Your task to perform on an android device: open app "DoorDash - Food Delivery" (install if not already installed), go to login, and select forgot password Image 0: 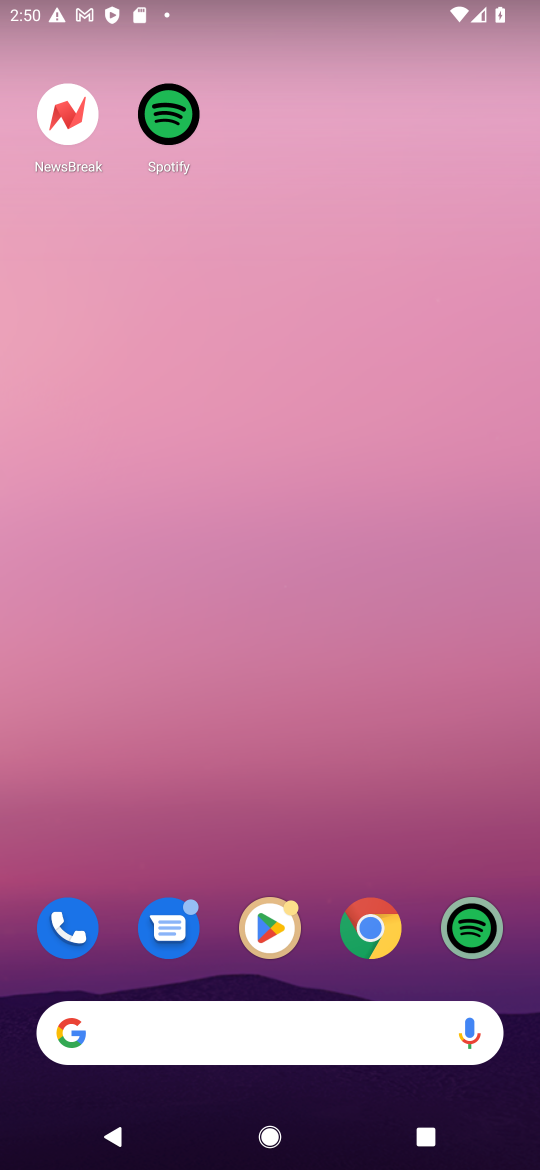
Step 0: click (276, 918)
Your task to perform on an android device: open app "DoorDash - Food Delivery" (install if not already installed), go to login, and select forgot password Image 1: 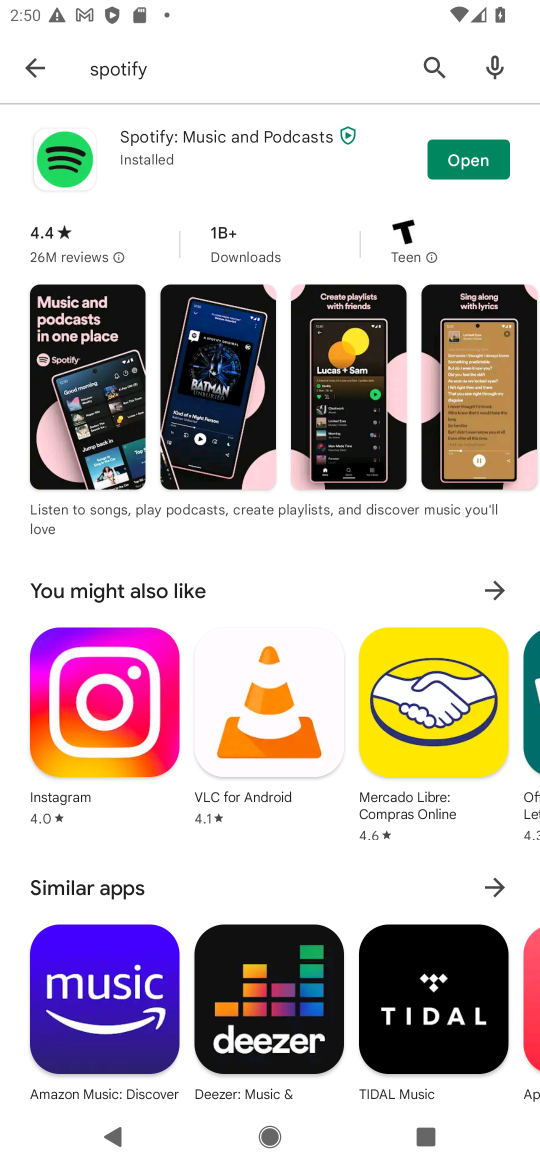
Step 1: click (135, 64)
Your task to perform on an android device: open app "DoorDash - Food Delivery" (install if not already installed), go to login, and select forgot password Image 2: 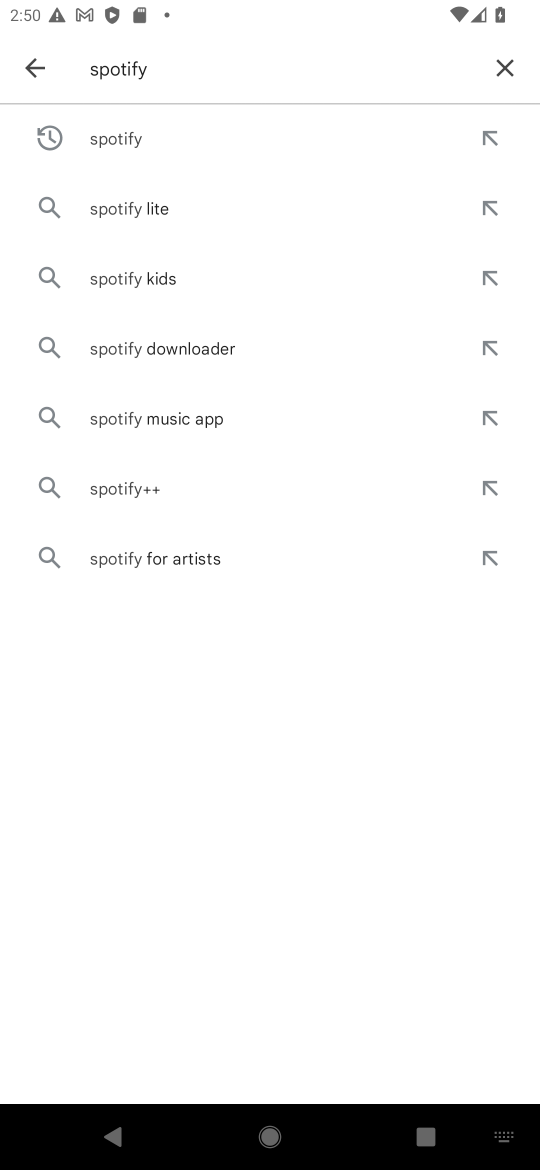
Step 2: click (500, 64)
Your task to perform on an android device: open app "DoorDash - Food Delivery" (install if not already installed), go to login, and select forgot password Image 3: 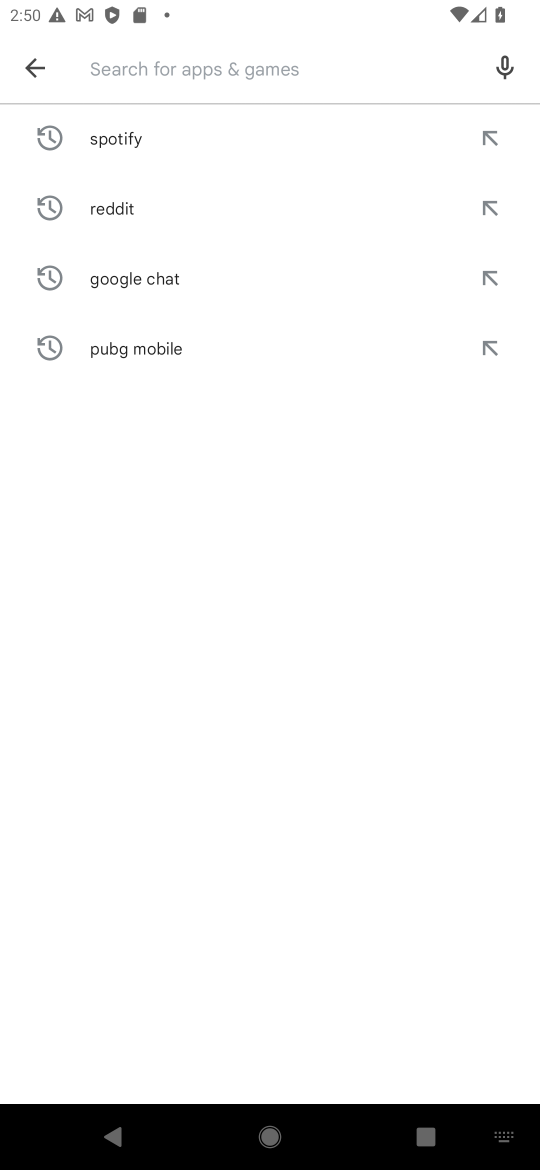
Step 3: type "DoorDash - Food Delivery"
Your task to perform on an android device: open app "DoorDash - Food Delivery" (install if not already installed), go to login, and select forgot password Image 4: 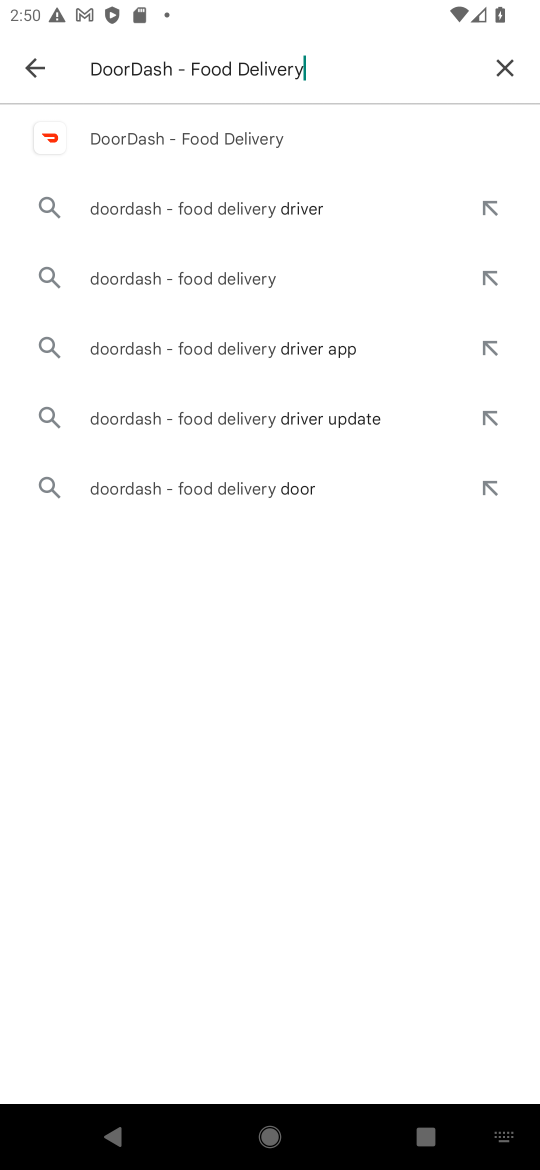
Step 4: click (169, 138)
Your task to perform on an android device: open app "DoorDash - Food Delivery" (install if not already installed), go to login, and select forgot password Image 5: 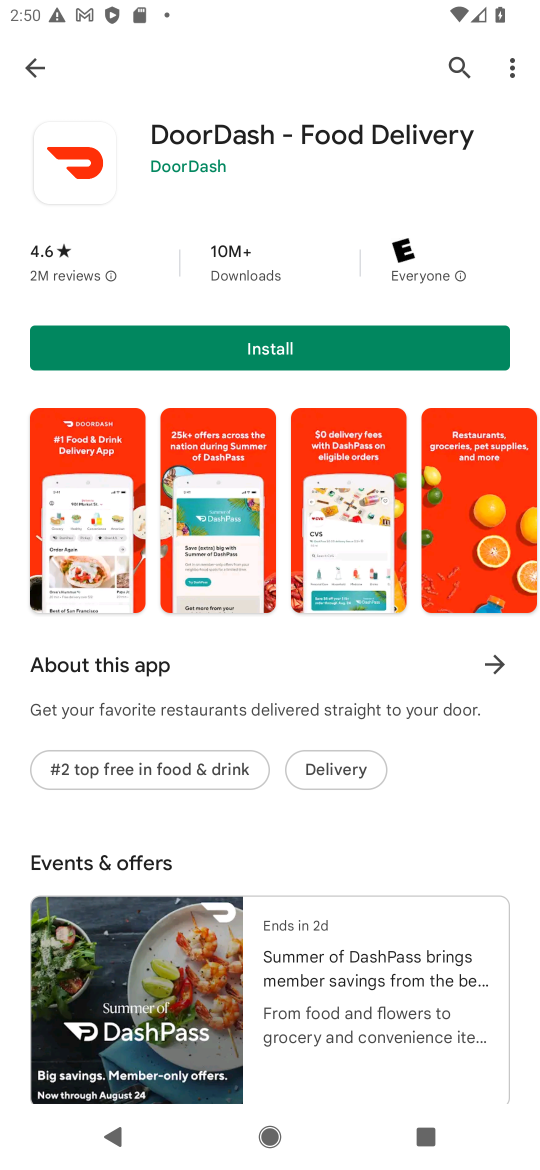
Step 5: click (285, 344)
Your task to perform on an android device: open app "DoorDash - Food Delivery" (install if not already installed), go to login, and select forgot password Image 6: 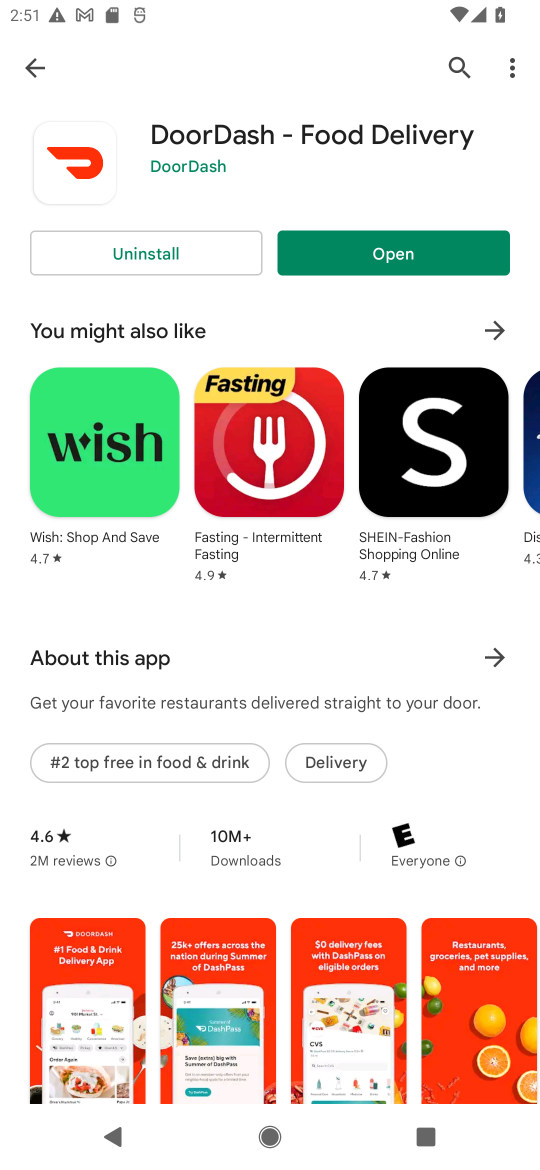
Step 6: click (390, 262)
Your task to perform on an android device: open app "DoorDash - Food Delivery" (install if not already installed), go to login, and select forgot password Image 7: 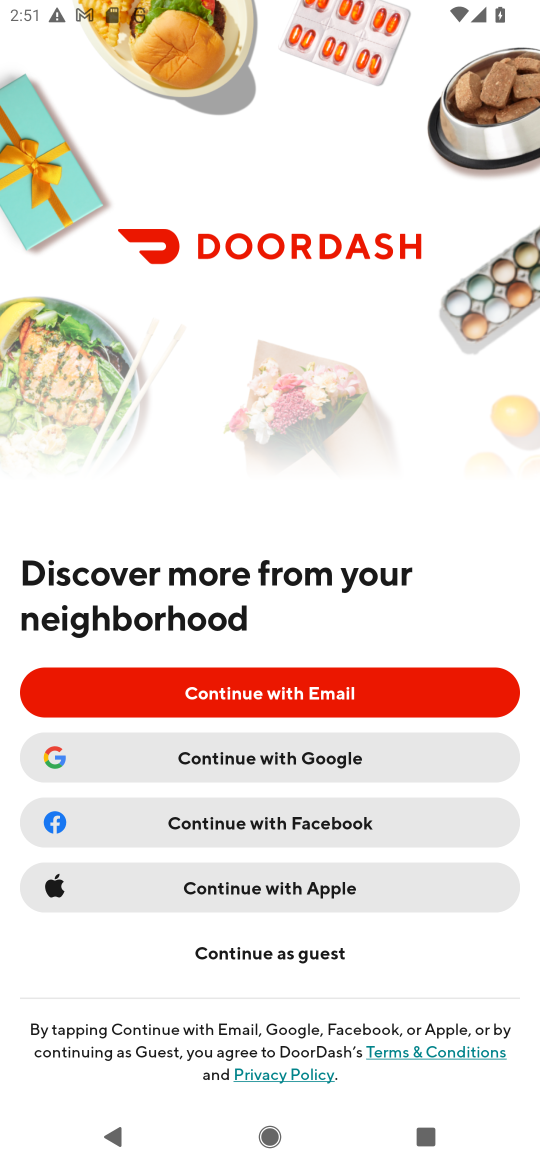
Step 7: click (297, 695)
Your task to perform on an android device: open app "DoorDash - Food Delivery" (install if not already installed), go to login, and select forgot password Image 8: 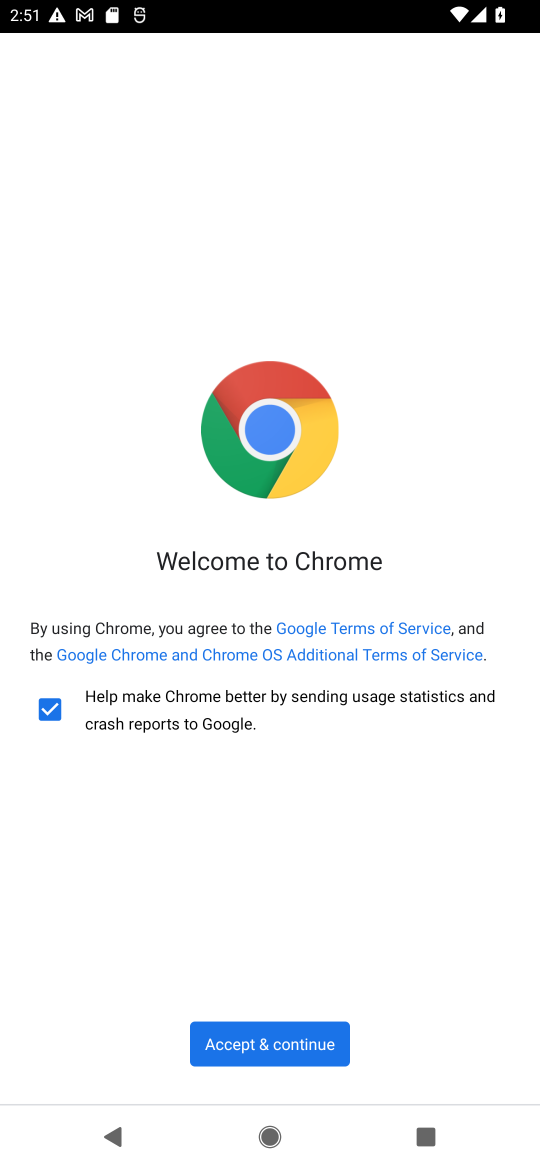
Step 8: click (239, 1056)
Your task to perform on an android device: open app "DoorDash - Food Delivery" (install if not already installed), go to login, and select forgot password Image 9: 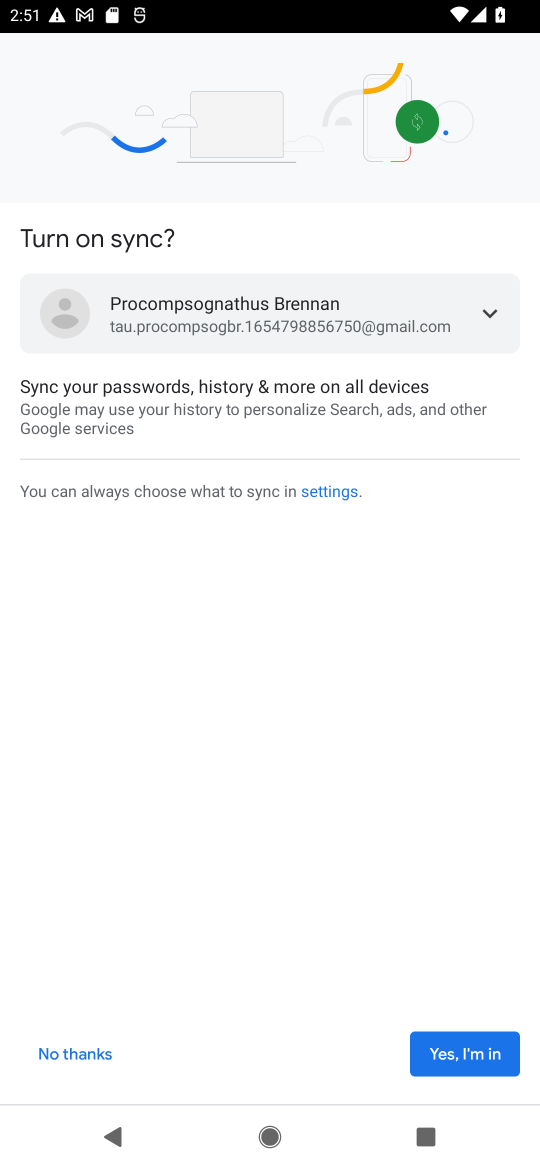
Step 9: click (442, 1046)
Your task to perform on an android device: open app "DoorDash - Food Delivery" (install if not already installed), go to login, and select forgot password Image 10: 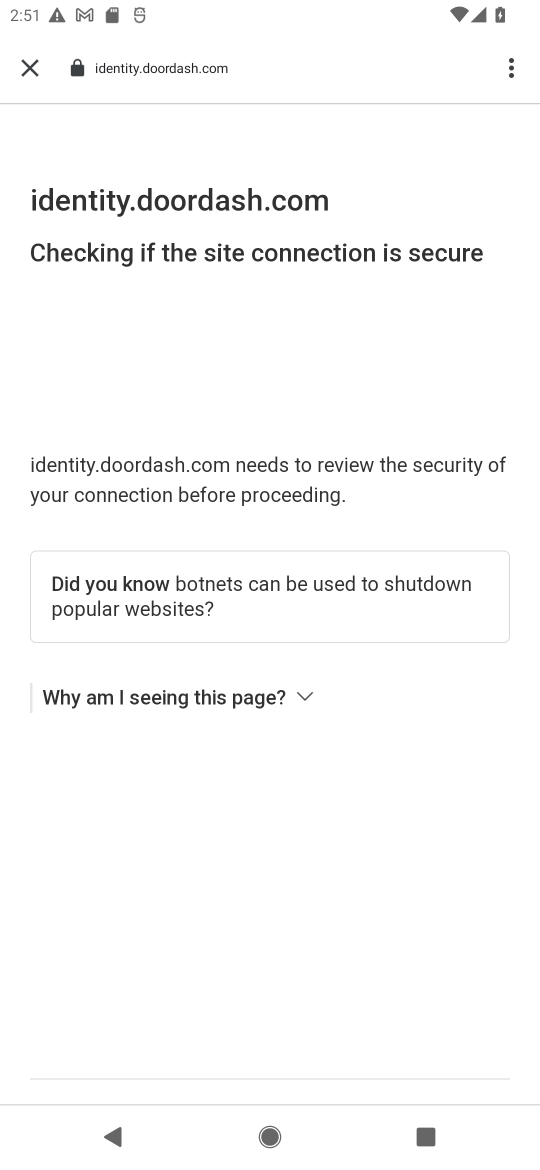
Step 10: task complete